Your task to perform on an android device: delete location history Image 0: 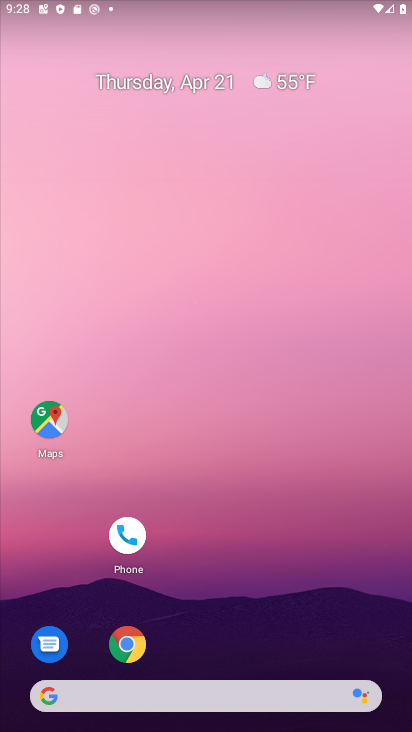
Step 0: drag from (258, 598) to (329, 166)
Your task to perform on an android device: delete location history Image 1: 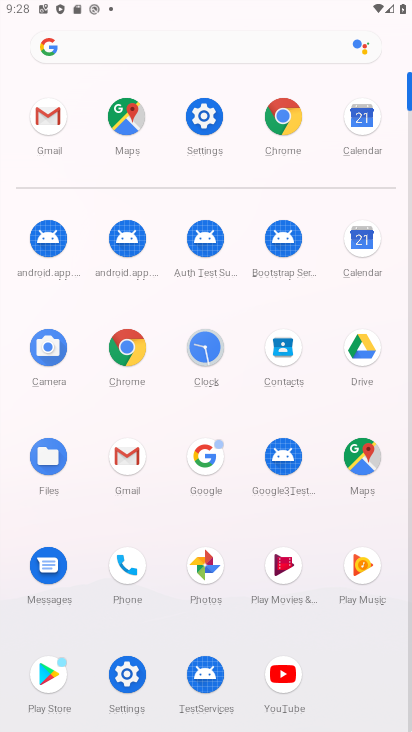
Step 1: click (370, 459)
Your task to perform on an android device: delete location history Image 2: 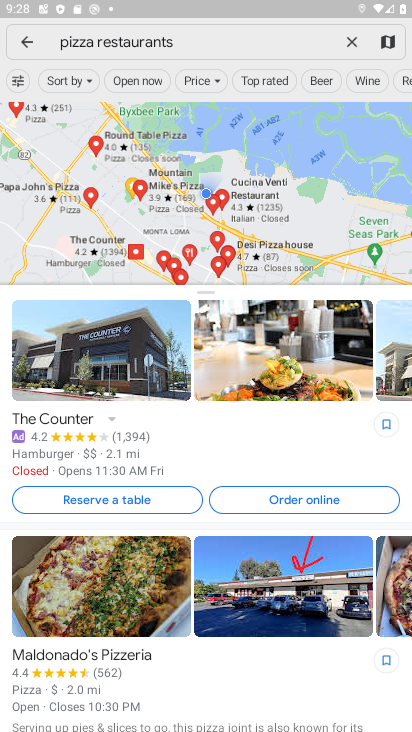
Step 2: click (20, 44)
Your task to perform on an android device: delete location history Image 3: 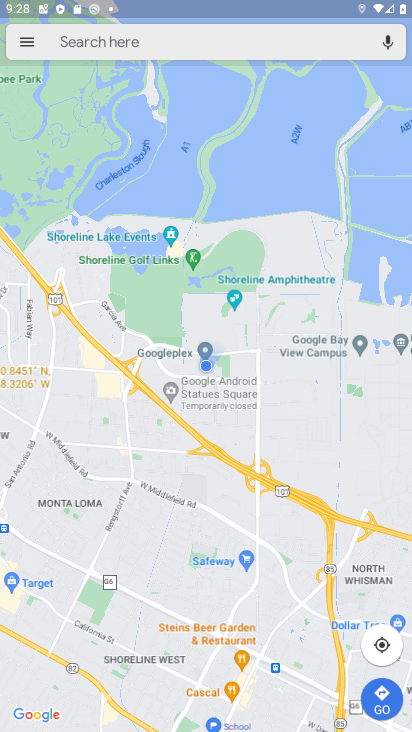
Step 3: click (25, 42)
Your task to perform on an android device: delete location history Image 4: 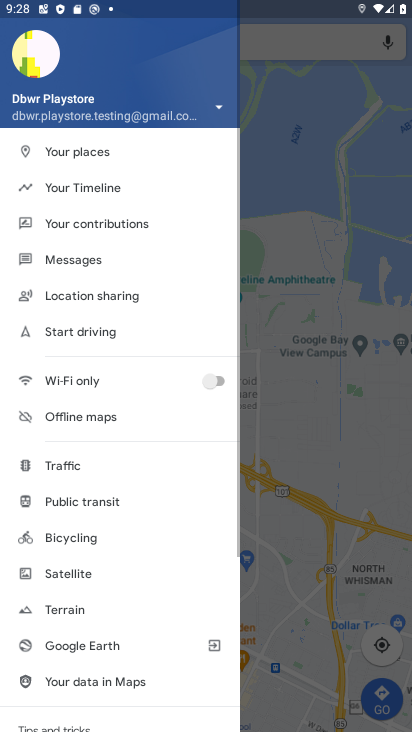
Step 4: drag from (96, 635) to (182, 159)
Your task to perform on an android device: delete location history Image 5: 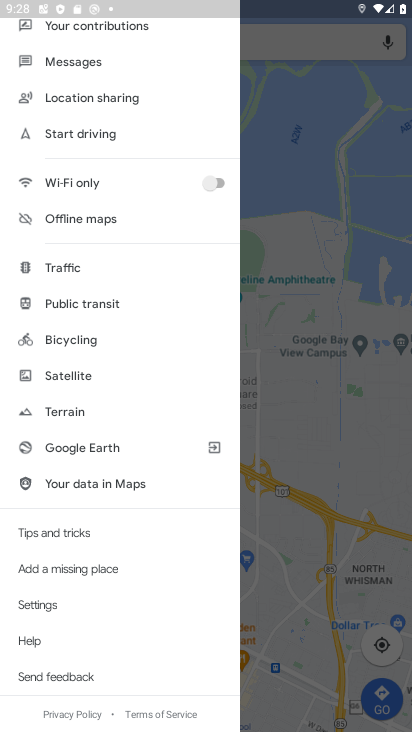
Step 5: drag from (90, 577) to (140, 403)
Your task to perform on an android device: delete location history Image 6: 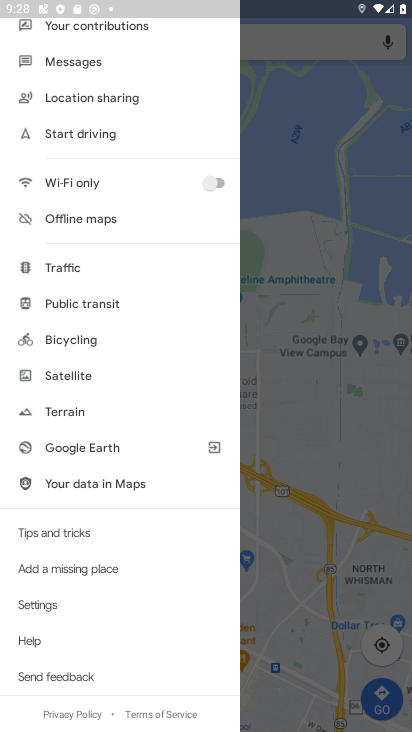
Step 6: click (24, 600)
Your task to perform on an android device: delete location history Image 7: 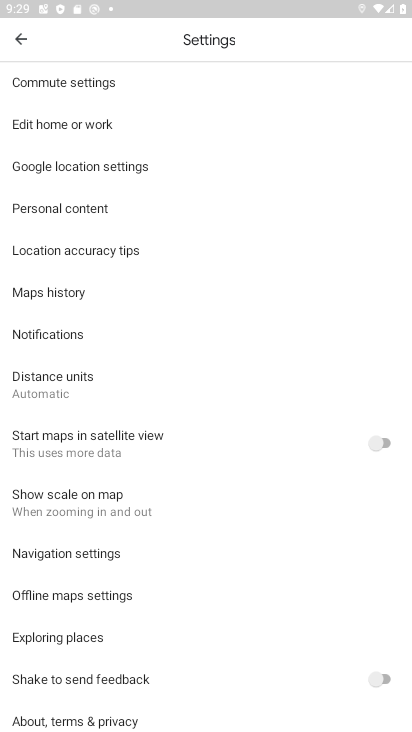
Step 7: click (76, 291)
Your task to perform on an android device: delete location history Image 8: 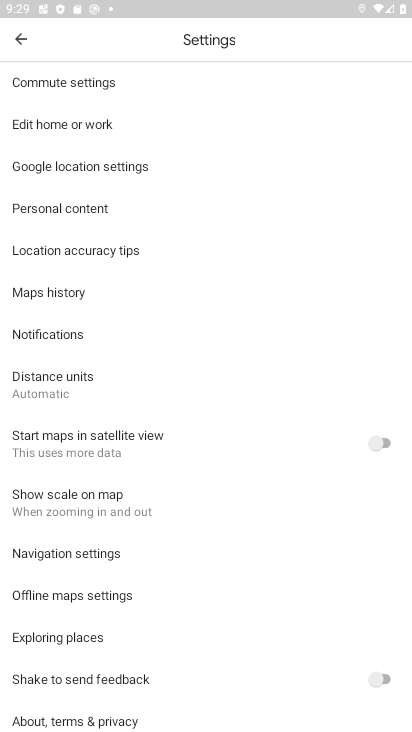
Step 8: click (75, 291)
Your task to perform on an android device: delete location history Image 9: 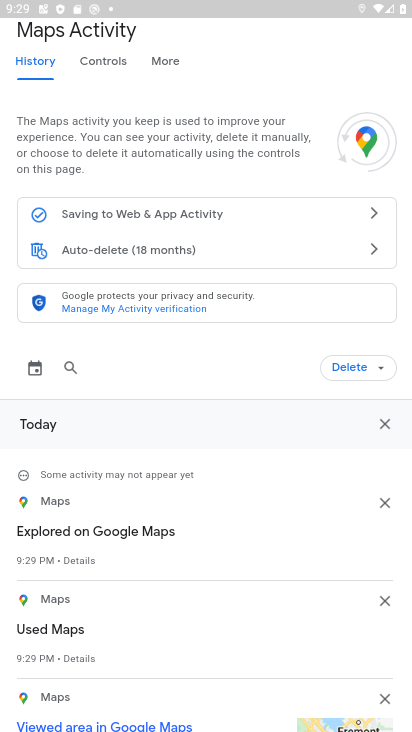
Step 9: click (381, 360)
Your task to perform on an android device: delete location history Image 10: 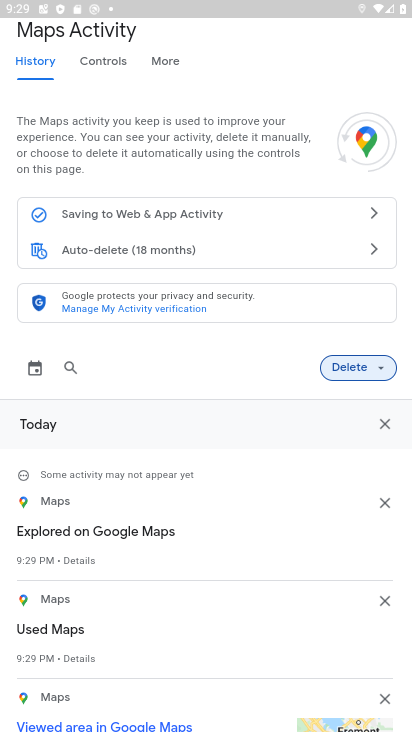
Step 10: click (359, 367)
Your task to perform on an android device: delete location history Image 11: 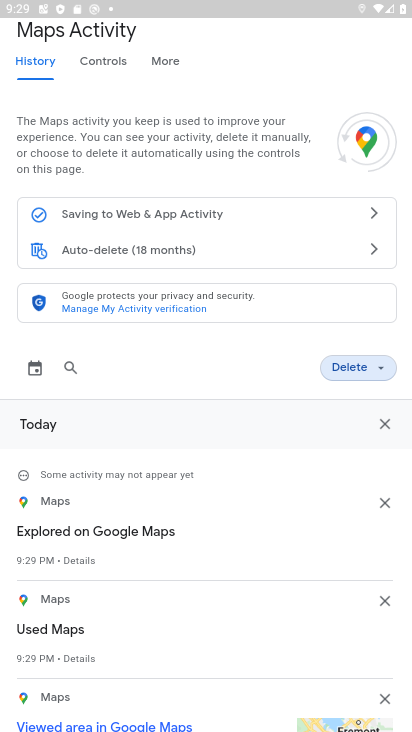
Step 11: click (377, 368)
Your task to perform on an android device: delete location history Image 12: 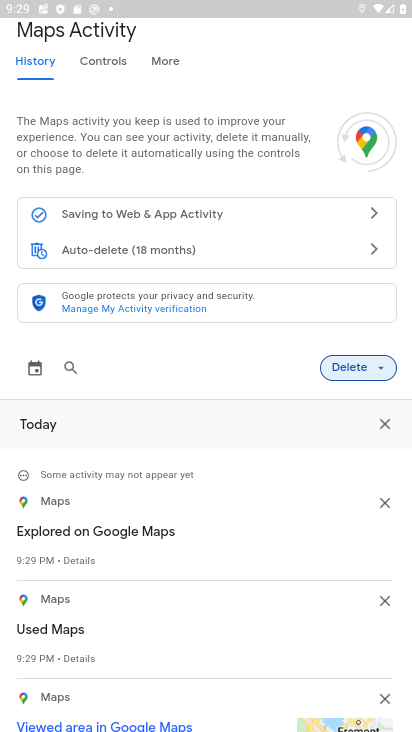
Step 12: click (377, 368)
Your task to perform on an android device: delete location history Image 13: 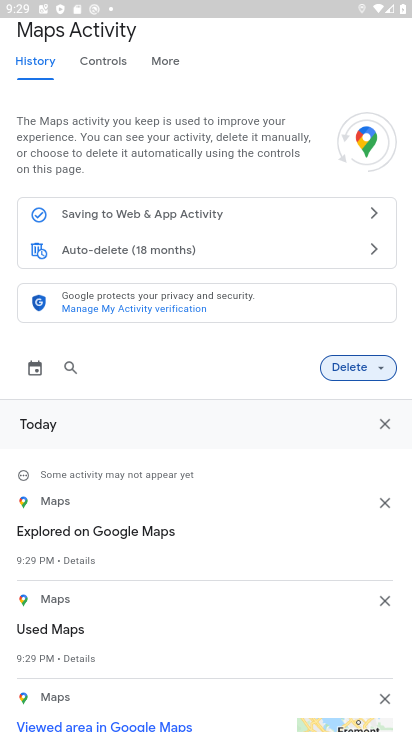
Step 13: click (382, 365)
Your task to perform on an android device: delete location history Image 14: 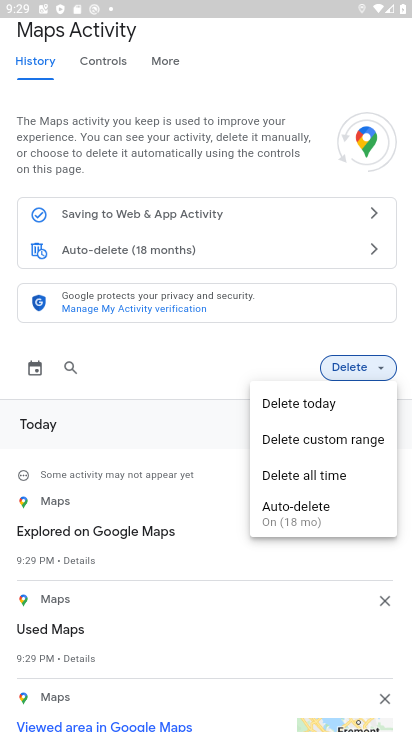
Step 14: click (303, 476)
Your task to perform on an android device: delete location history Image 15: 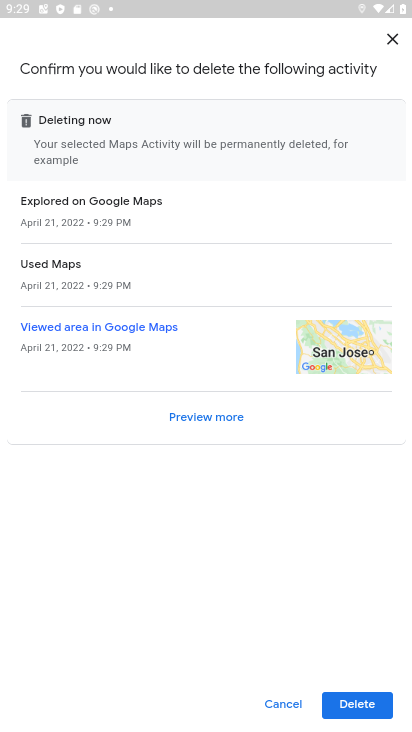
Step 15: click (350, 712)
Your task to perform on an android device: delete location history Image 16: 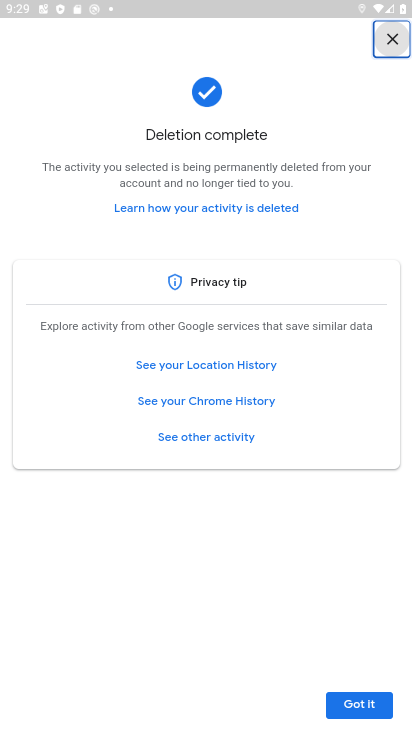
Step 16: task complete